Your task to perform on an android device: Do I have any events this weekend? Image 0: 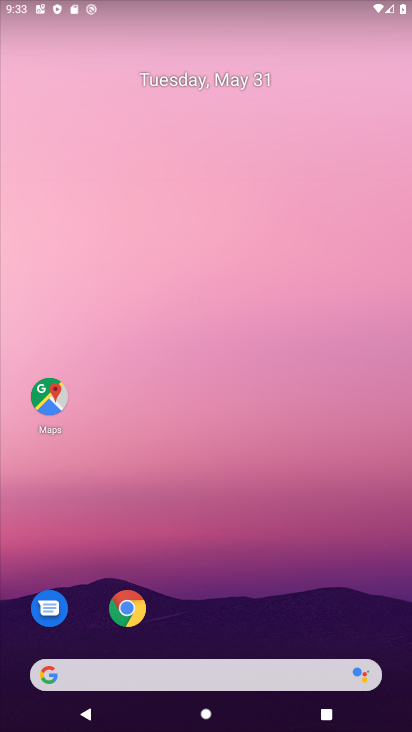
Step 0: drag from (261, 619) to (183, 12)
Your task to perform on an android device: Do I have any events this weekend? Image 1: 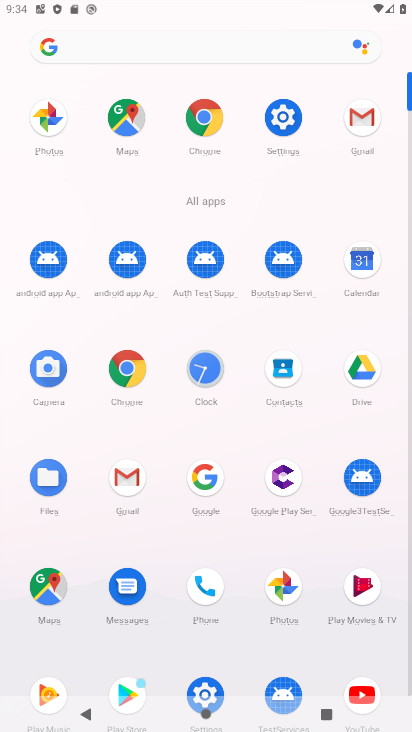
Step 1: click (346, 278)
Your task to perform on an android device: Do I have any events this weekend? Image 2: 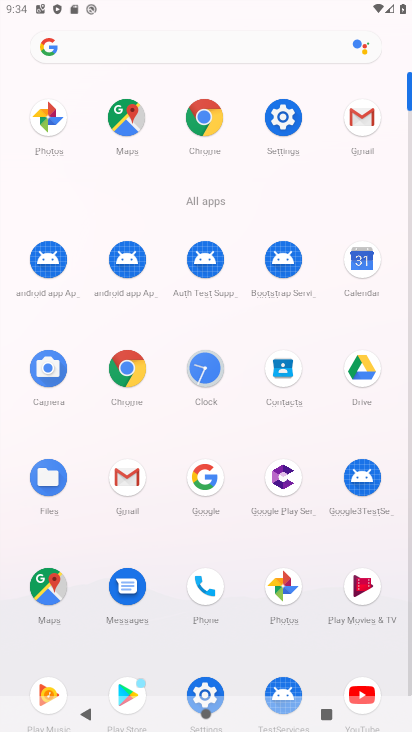
Step 2: task complete